Your task to perform on an android device: Open Google Chrome Image 0: 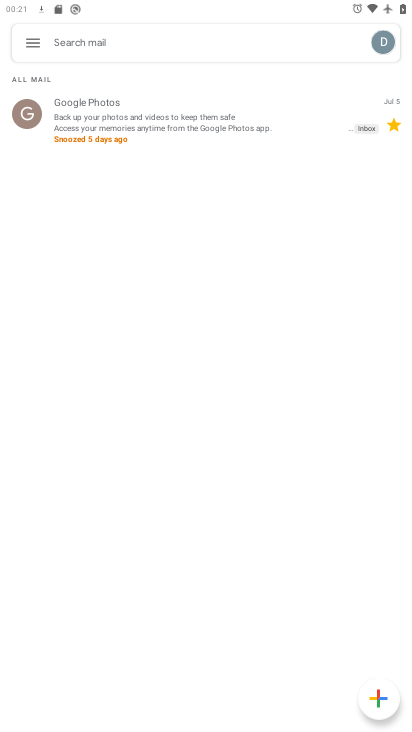
Step 0: press home button
Your task to perform on an android device: Open Google Chrome Image 1: 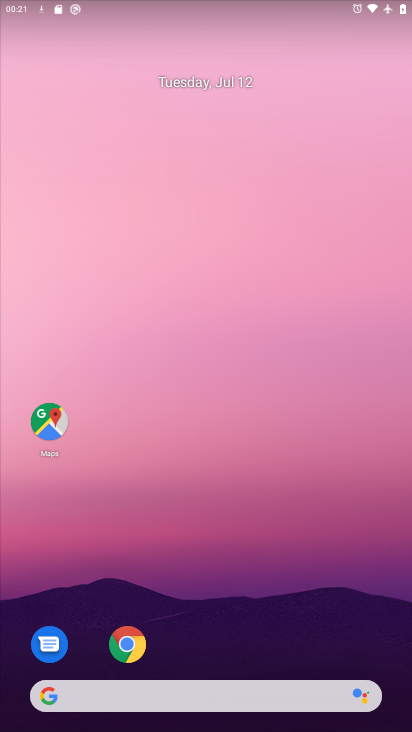
Step 1: drag from (189, 657) to (201, 487)
Your task to perform on an android device: Open Google Chrome Image 2: 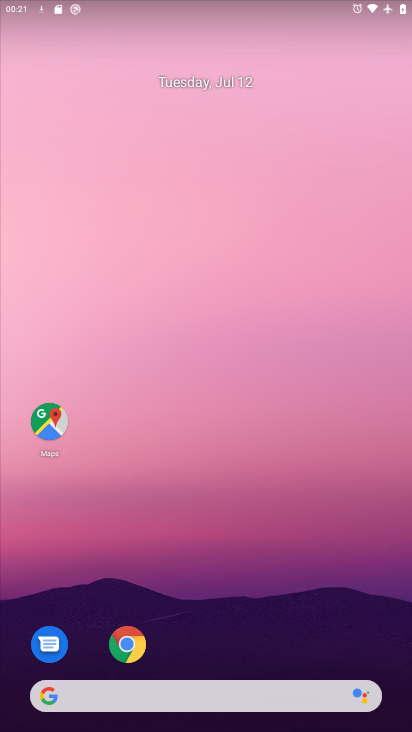
Step 2: drag from (227, 636) to (234, 315)
Your task to perform on an android device: Open Google Chrome Image 3: 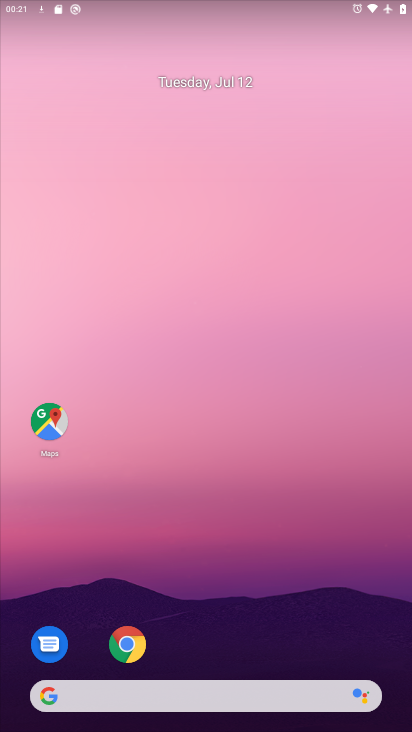
Step 3: drag from (284, 292) to (299, 121)
Your task to perform on an android device: Open Google Chrome Image 4: 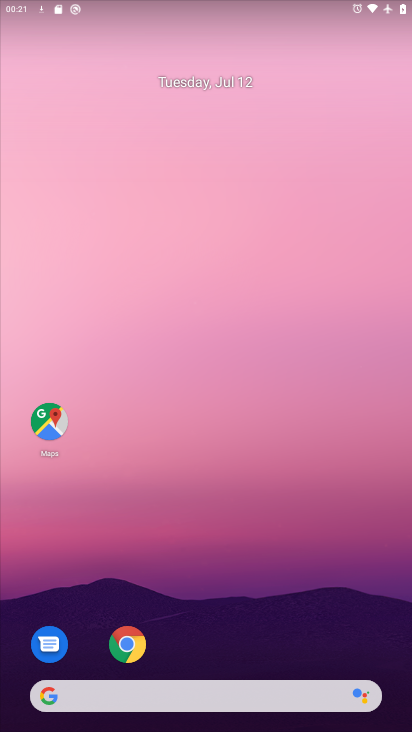
Step 4: drag from (196, 646) to (221, 245)
Your task to perform on an android device: Open Google Chrome Image 5: 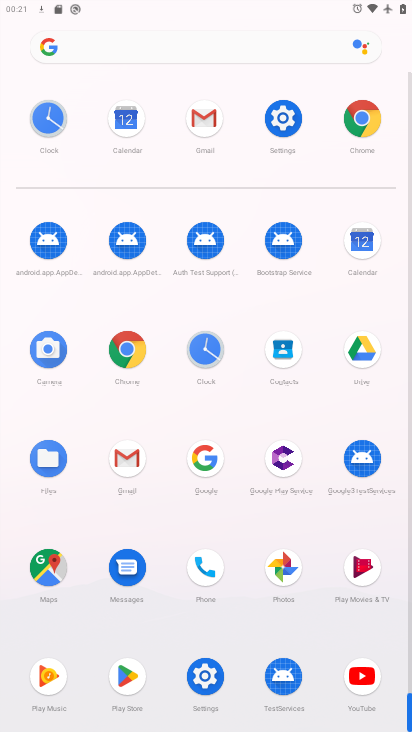
Step 5: click (357, 123)
Your task to perform on an android device: Open Google Chrome Image 6: 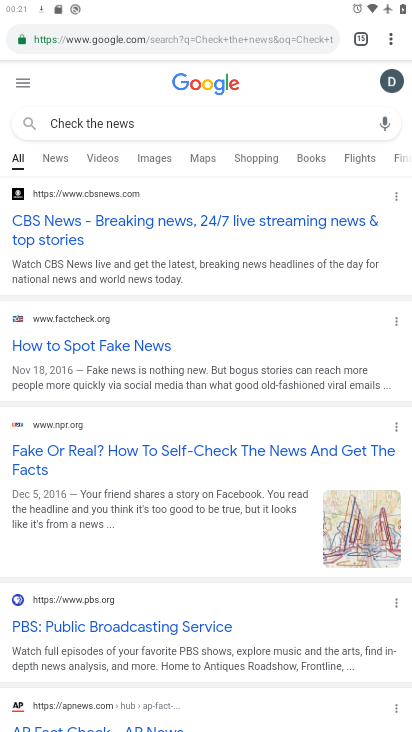
Step 6: task complete